Your task to perform on an android device: turn on sleep mode Image 0: 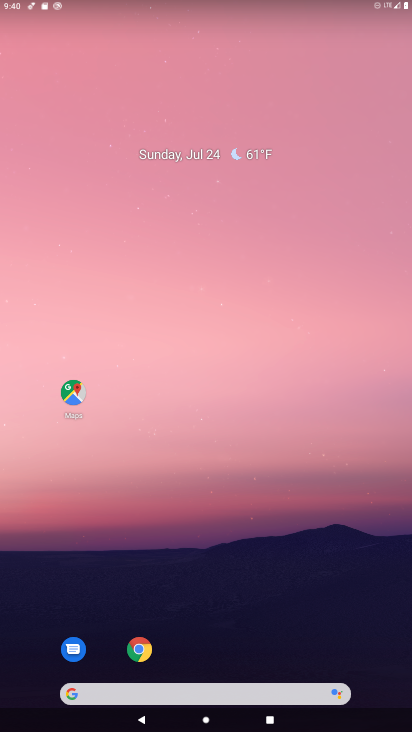
Step 0: drag from (340, 634) to (280, 170)
Your task to perform on an android device: turn on sleep mode Image 1: 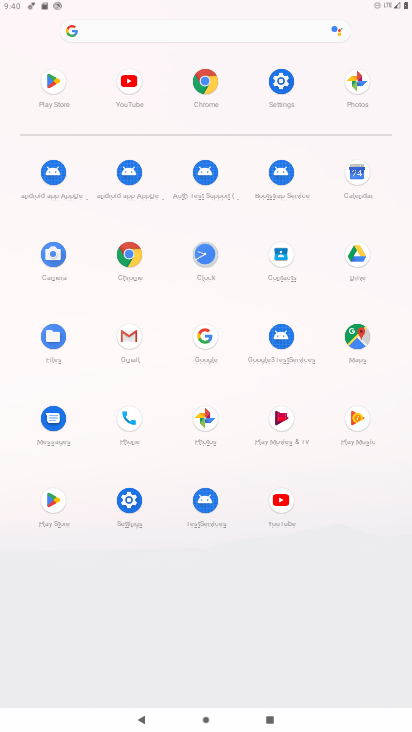
Step 1: click (284, 78)
Your task to perform on an android device: turn on sleep mode Image 2: 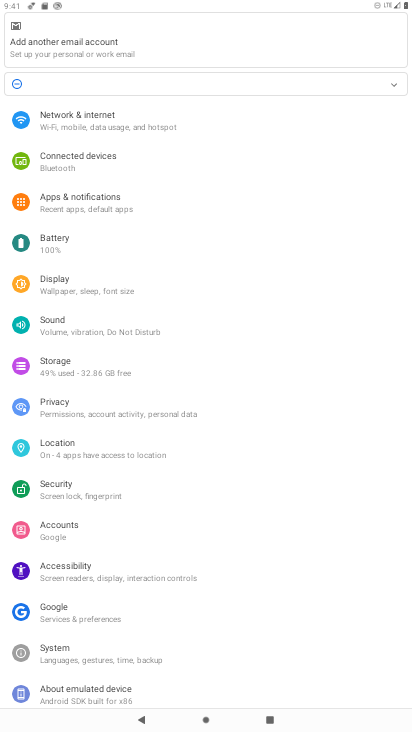
Step 2: click (82, 282)
Your task to perform on an android device: turn on sleep mode Image 3: 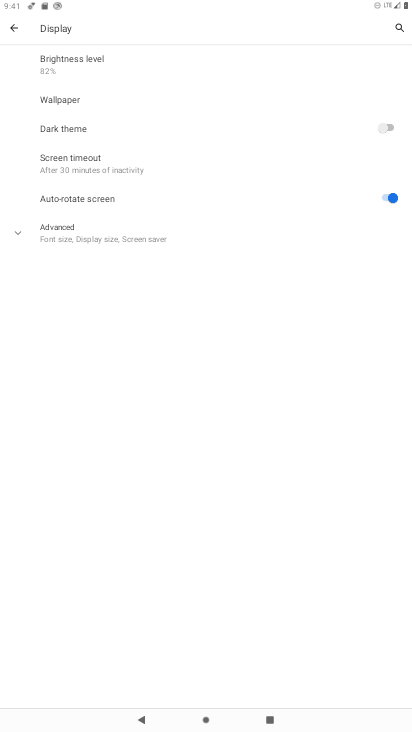
Step 3: click (45, 172)
Your task to perform on an android device: turn on sleep mode Image 4: 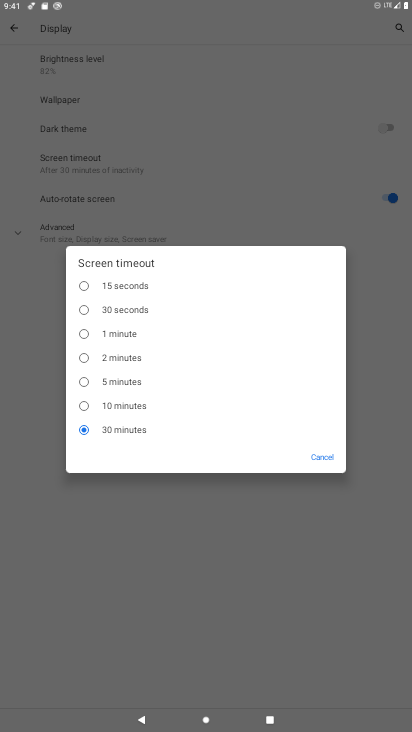
Step 4: task complete